Your task to perform on an android device: visit the assistant section in the google photos Image 0: 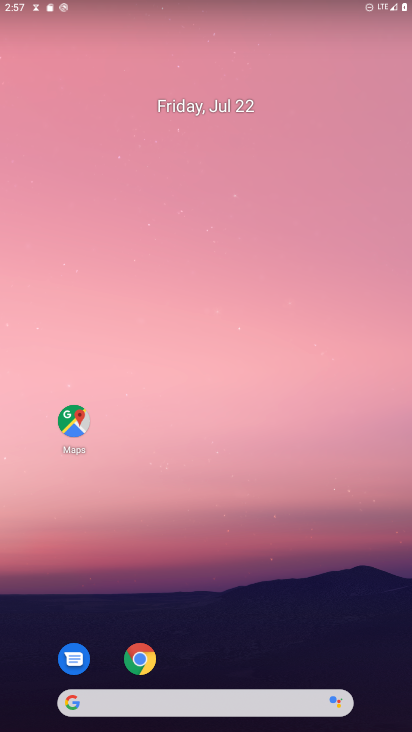
Step 0: drag from (243, 635) to (152, 15)
Your task to perform on an android device: visit the assistant section in the google photos Image 1: 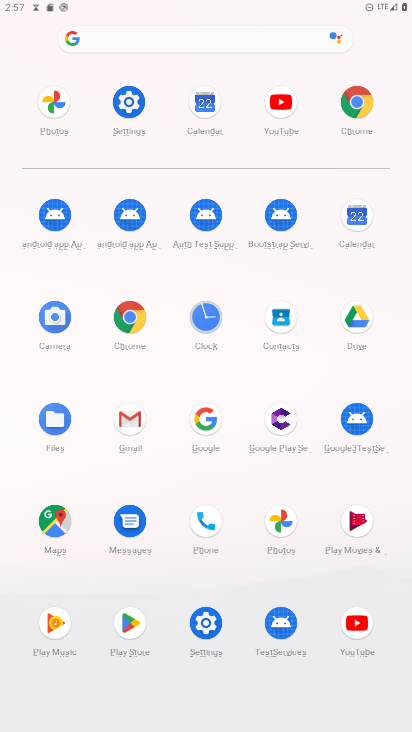
Step 1: click (287, 517)
Your task to perform on an android device: visit the assistant section in the google photos Image 2: 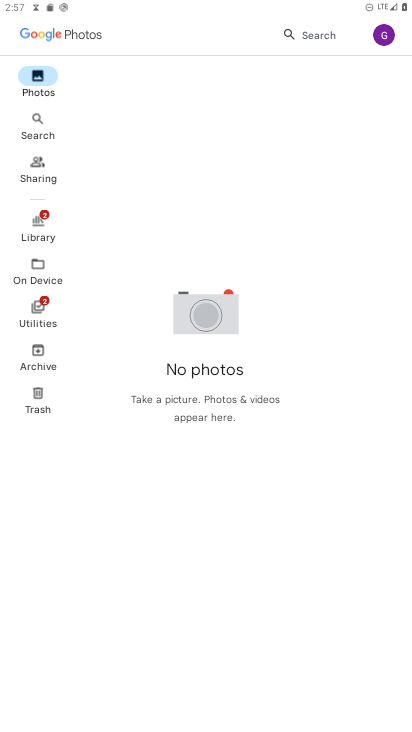
Step 2: task complete